Your task to perform on an android device: change the clock display to digital Image 0: 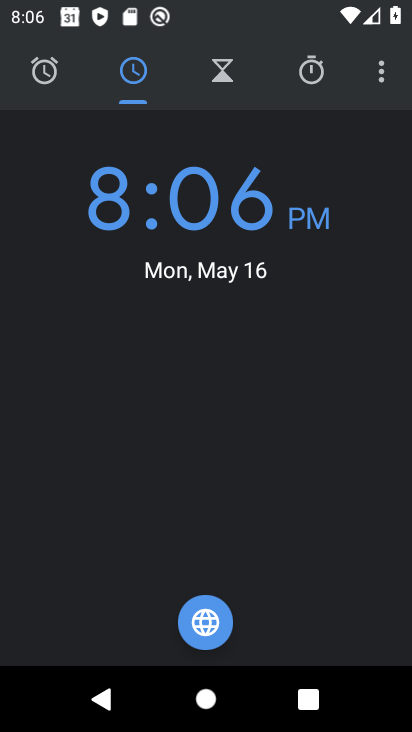
Step 0: click (383, 71)
Your task to perform on an android device: change the clock display to digital Image 1: 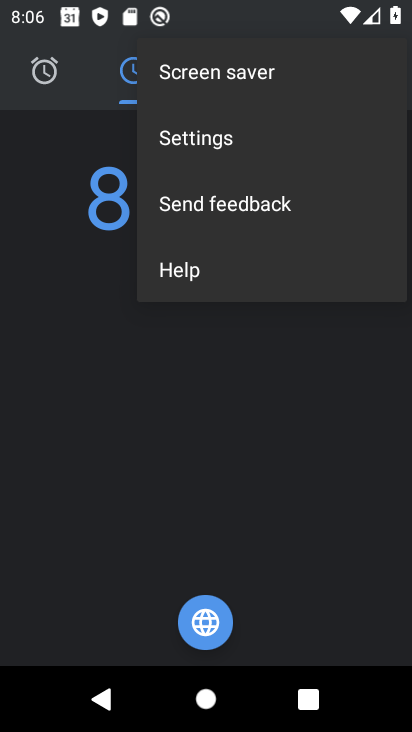
Step 1: click (220, 129)
Your task to perform on an android device: change the clock display to digital Image 2: 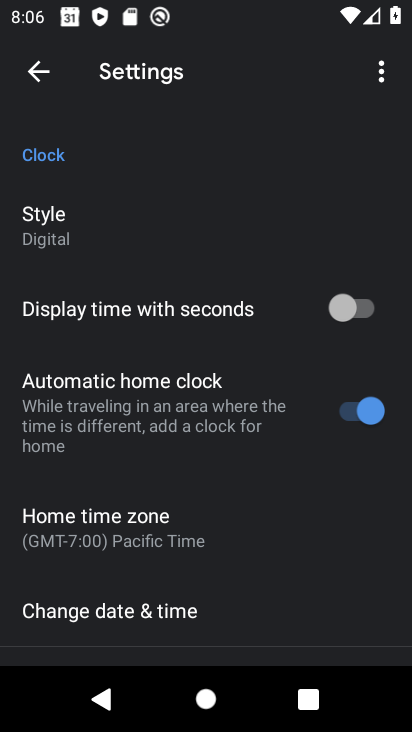
Step 2: task complete